Your task to perform on an android device: change text size in settings app Image 0: 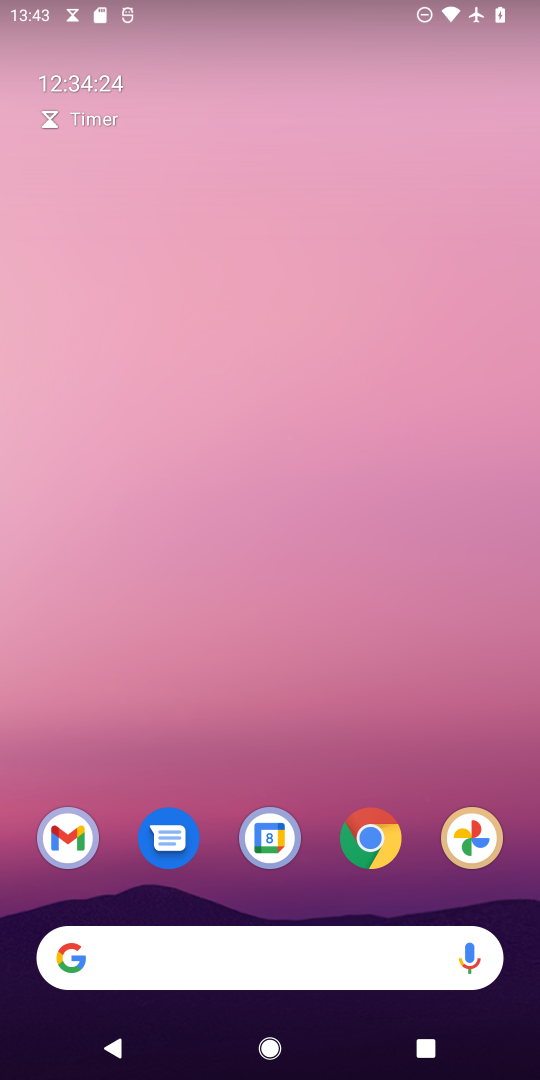
Step 0: press home button
Your task to perform on an android device: change text size in settings app Image 1: 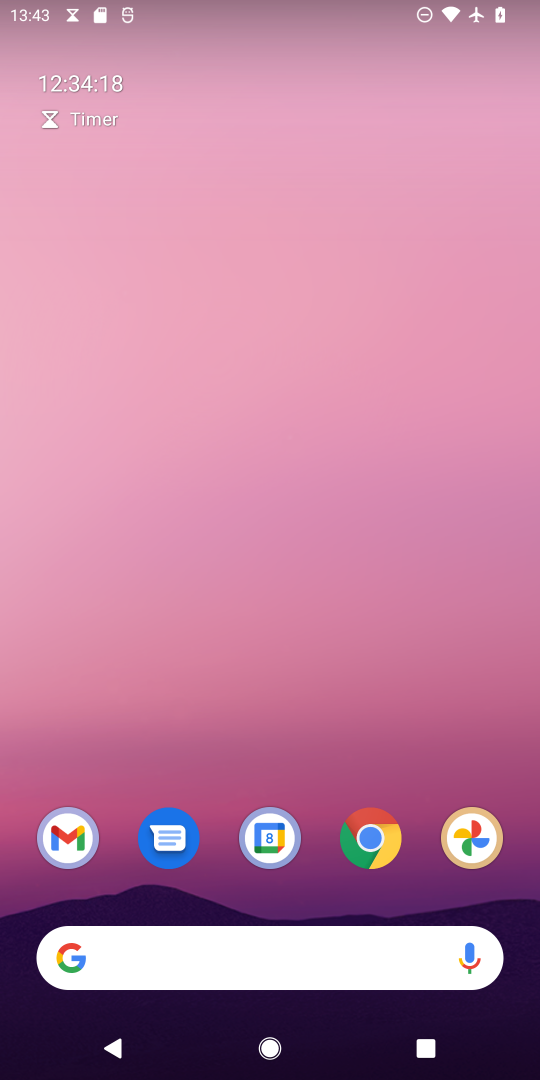
Step 1: drag from (335, 876) to (265, 195)
Your task to perform on an android device: change text size in settings app Image 2: 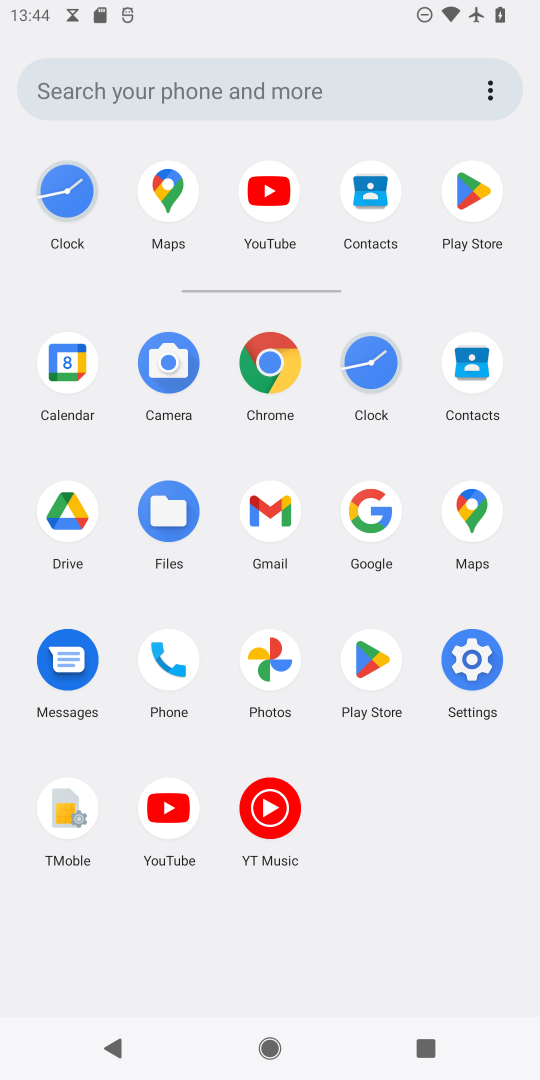
Step 2: click (459, 660)
Your task to perform on an android device: change text size in settings app Image 3: 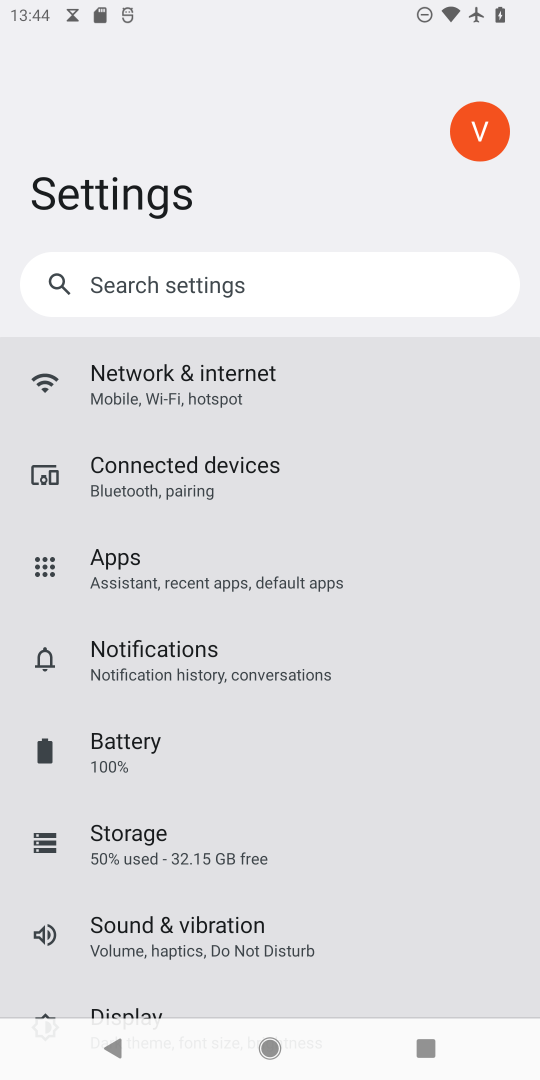
Step 3: drag from (362, 874) to (280, 257)
Your task to perform on an android device: change text size in settings app Image 4: 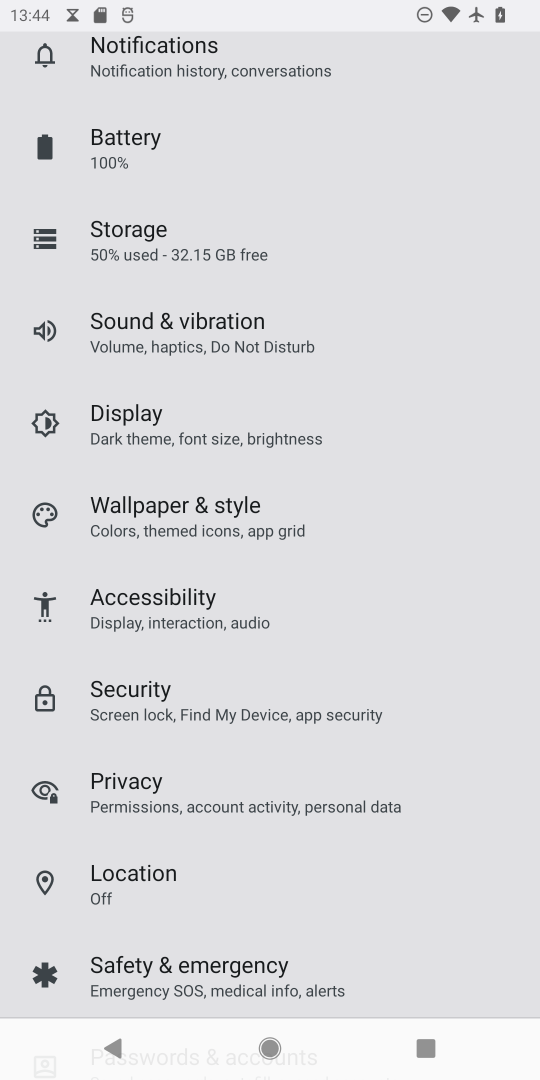
Step 4: click (152, 416)
Your task to perform on an android device: change text size in settings app Image 5: 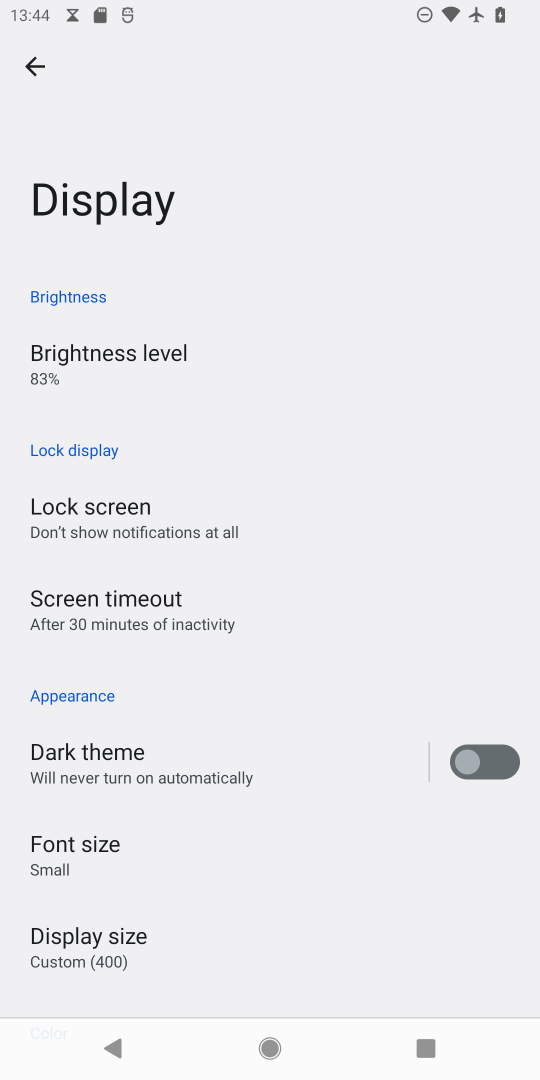
Step 5: click (37, 857)
Your task to perform on an android device: change text size in settings app Image 6: 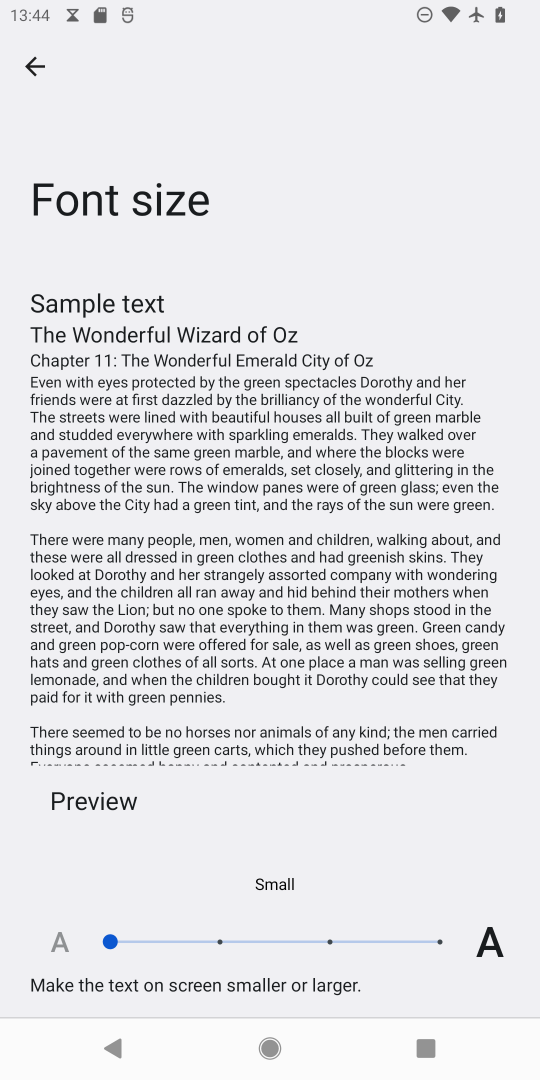
Step 6: click (329, 942)
Your task to perform on an android device: change text size in settings app Image 7: 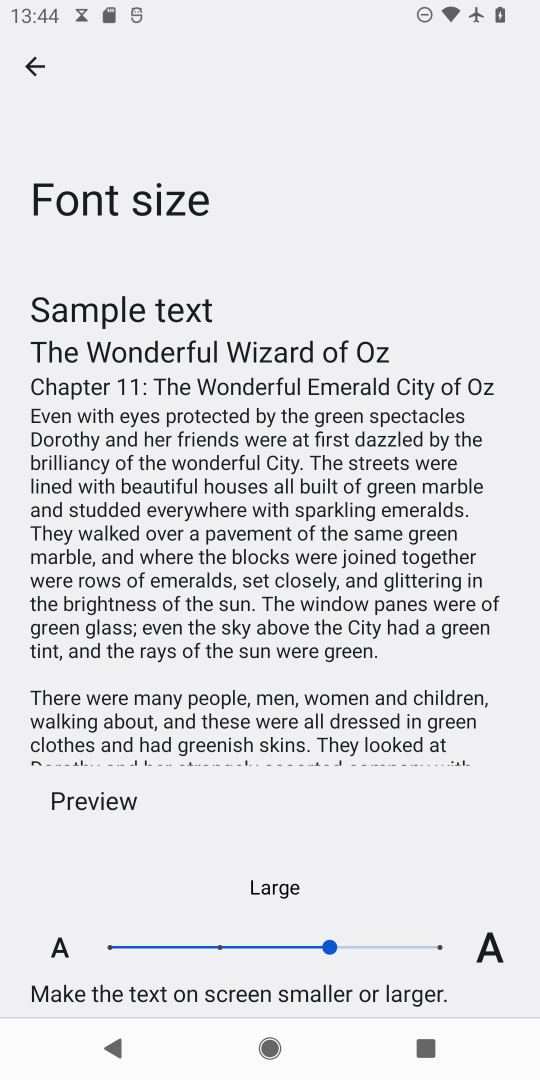
Step 7: task complete